Your task to perform on an android device: turn off wifi Image 0: 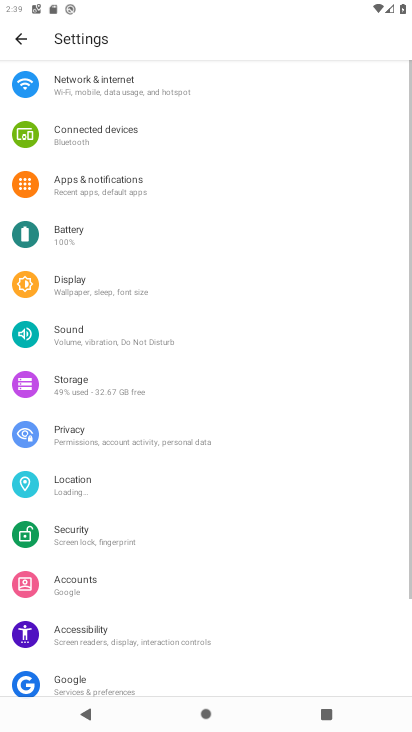
Step 0: click (140, 77)
Your task to perform on an android device: turn off wifi Image 1: 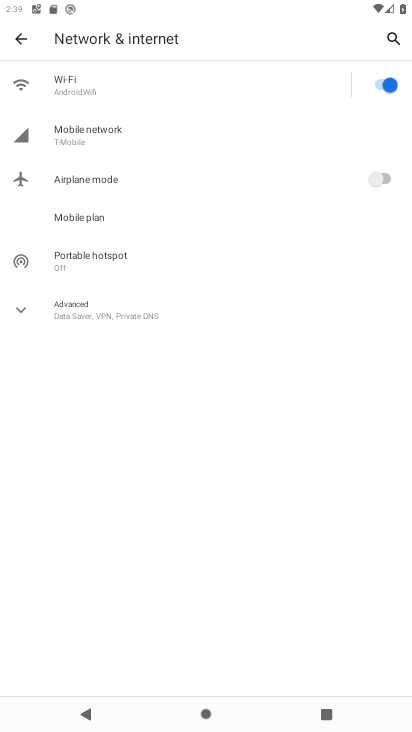
Step 1: click (385, 74)
Your task to perform on an android device: turn off wifi Image 2: 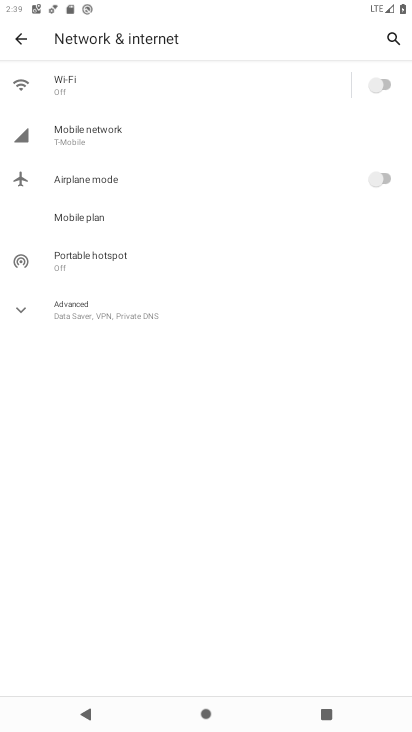
Step 2: task complete